Your task to perform on an android device: set default search engine in the chrome app Image 0: 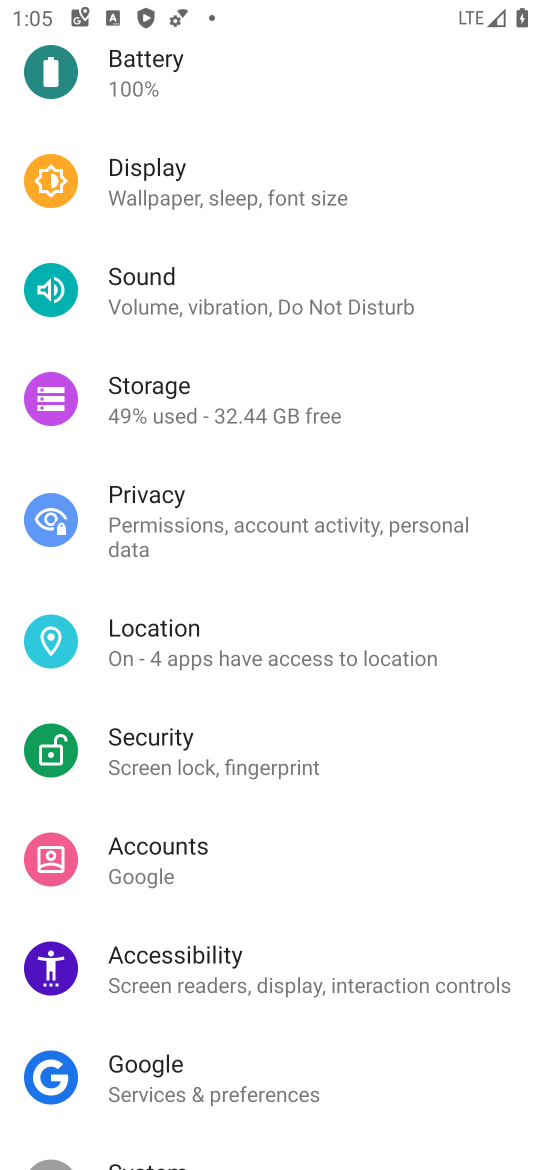
Step 0: press home button
Your task to perform on an android device: set default search engine in the chrome app Image 1: 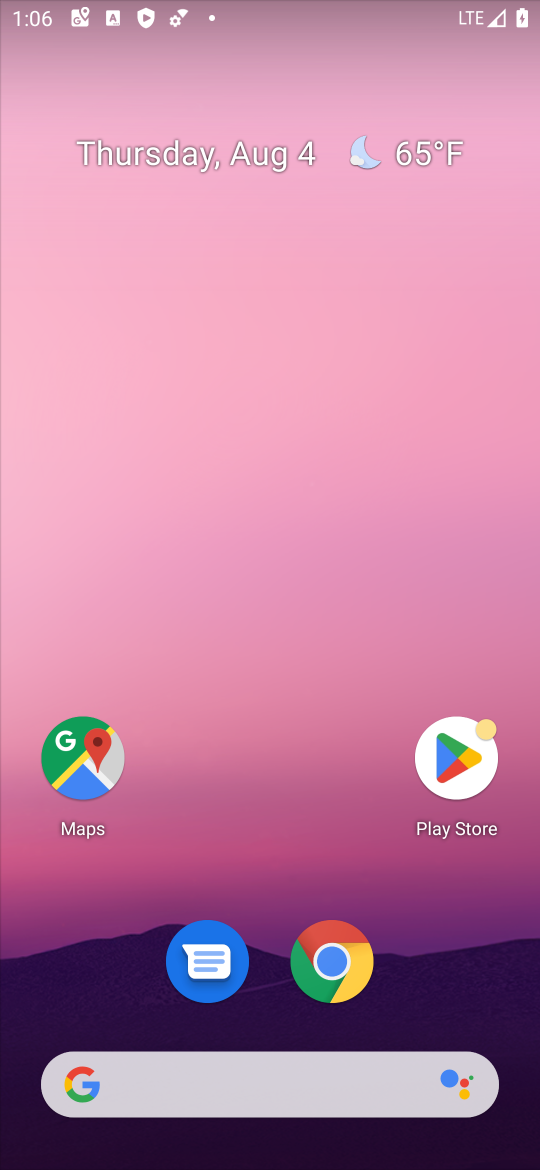
Step 1: click (338, 965)
Your task to perform on an android device: set default search engine in the chrome app Image 2: 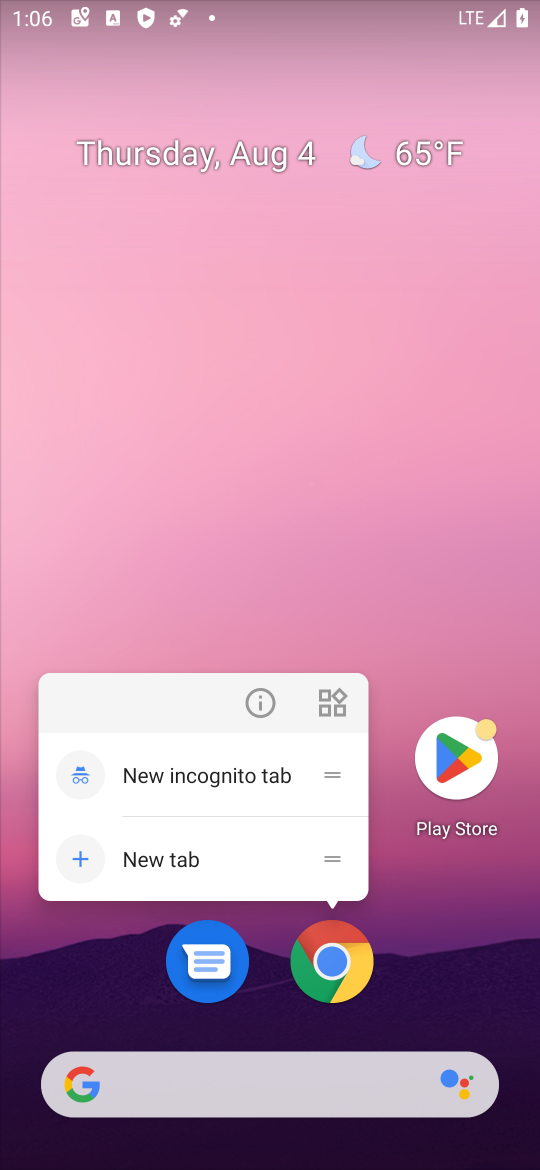
Step 2: click (338, 965)
Your task to perform on an android device: set default search engine in the chrome app Image 3: 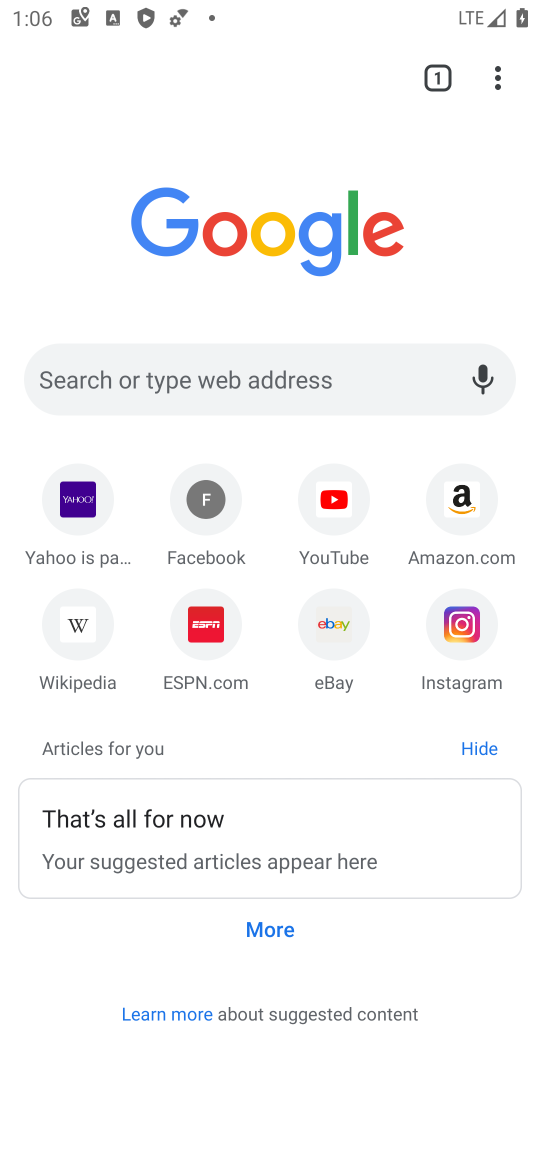
Step 3: click (490, 74)
Your task to perform on an android device: set default search engine in the chrome app Image 4: 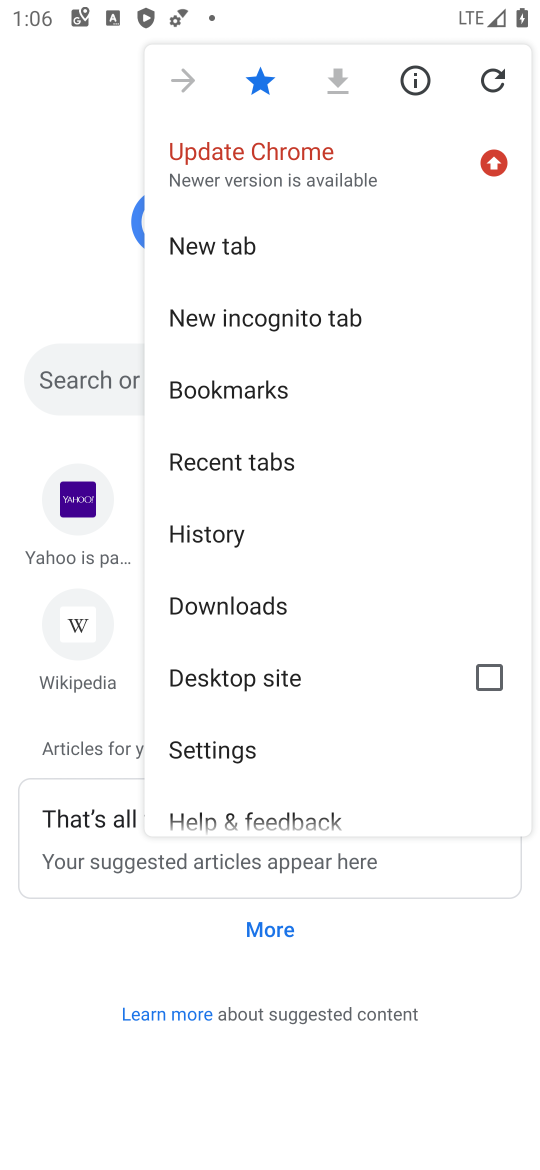
Step 4: click (217, 739)
Your task to perform on an android device: set default search engine in the chrome app Image 5: 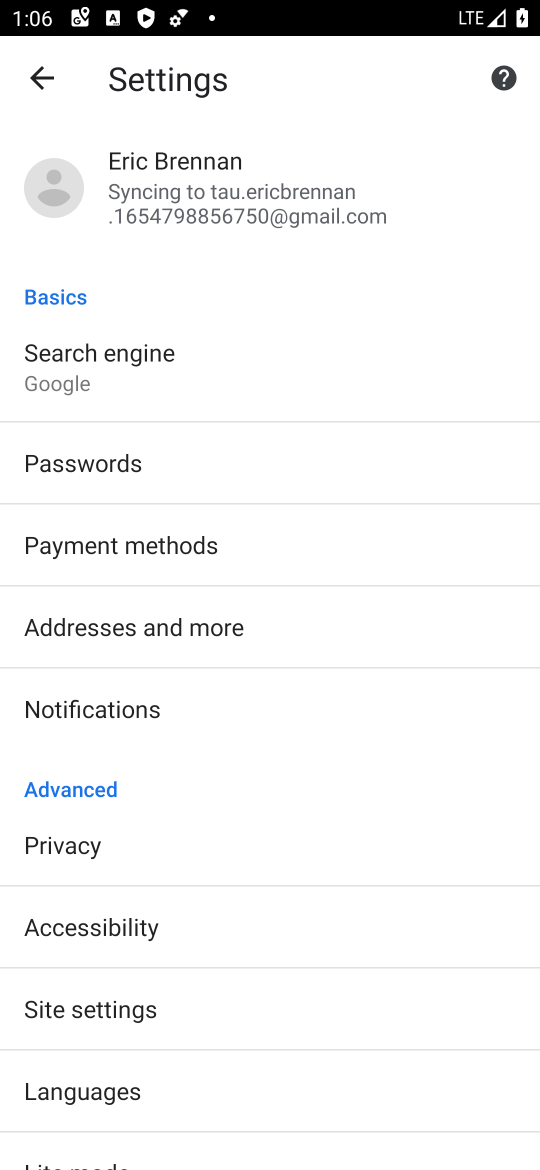
Step 5: click (132, 373)
Your task to perform on an android device: set default search engine in the chrome app Image 6: 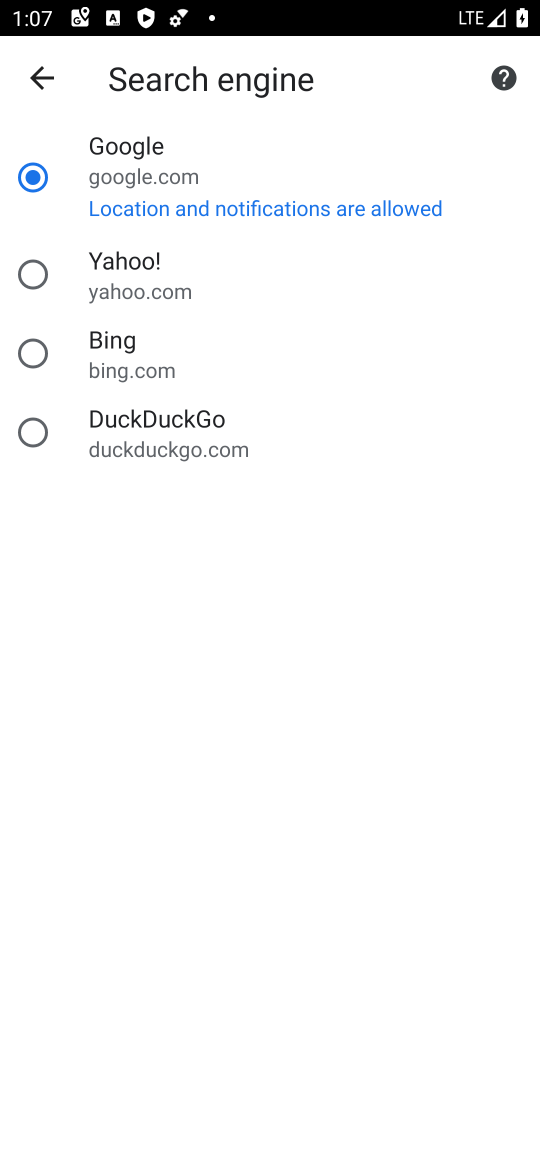
Step 6: task complete